Your task to perform on an android device: Open my contact list Image 0: 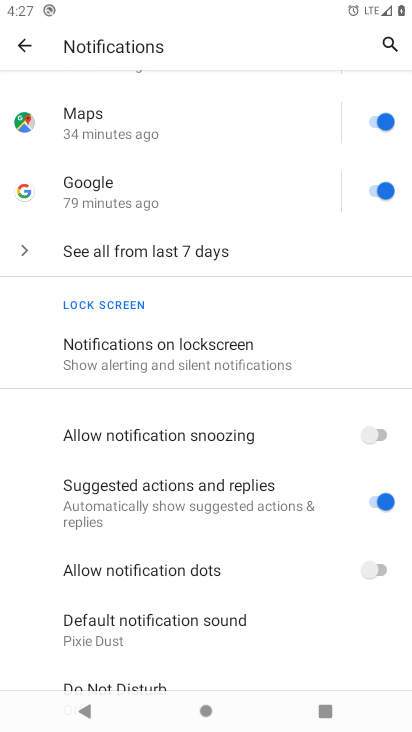
Step 0: press home button
Your task to perform on an android device: Open my contact list Image 1: 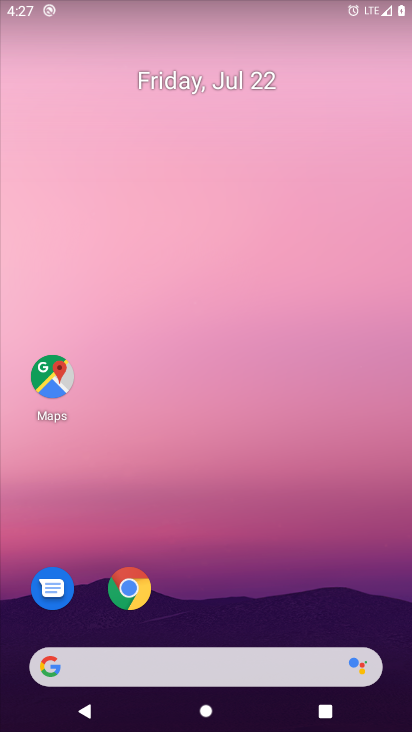
Step 1: drag from (233, 575) to (259, 137)
Your task to perform on an android device: Open my contact list Image 2: 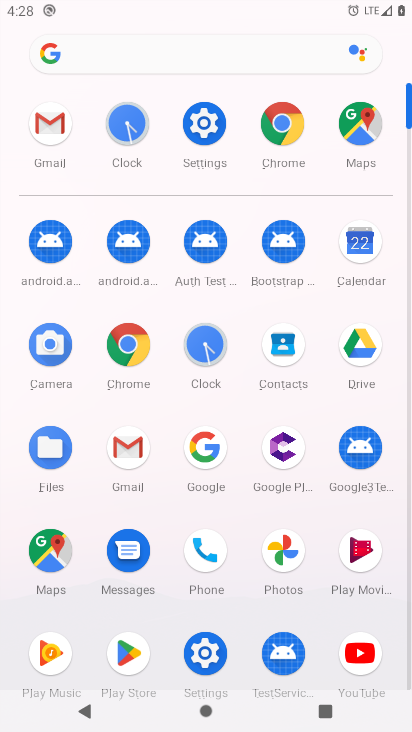
Step 2: drag from (236, 595) to (252, 280)
Your task to perform on an android device: Open my contact list Image 3: 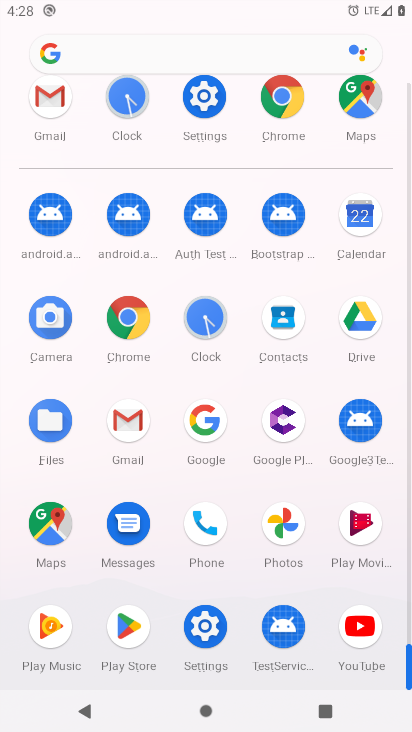
Step 3: click (291, 318)
Your task to perform on an android device: Open my contact list Image 4: 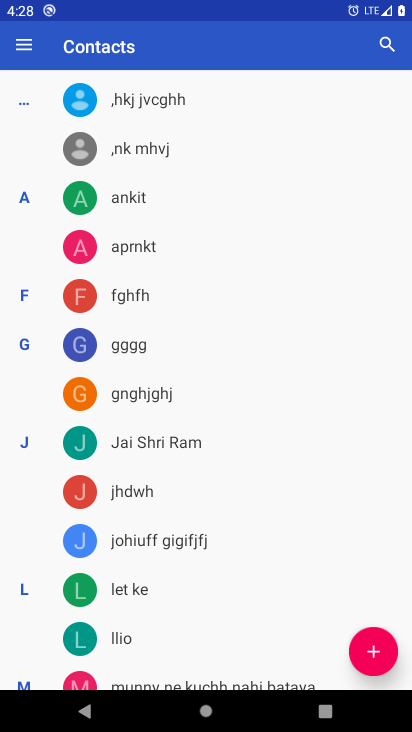
Step 4: task complete